Your task to perform on an android device: toggle location history Image 0: 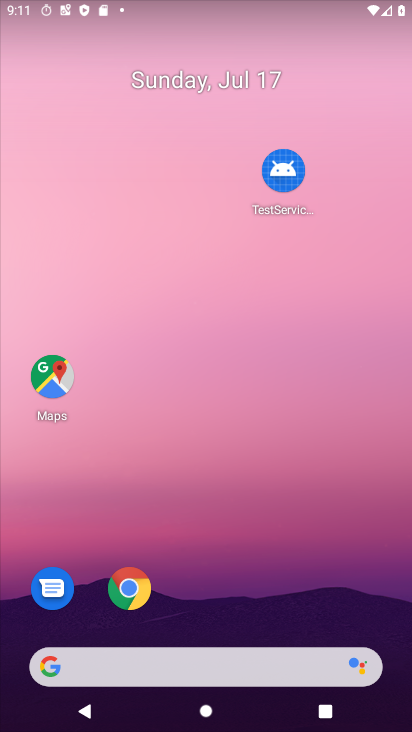
Step 0: drag from (229, 645) to (368, 57)
Your task to perform on an android device: toggle location history Image 1: 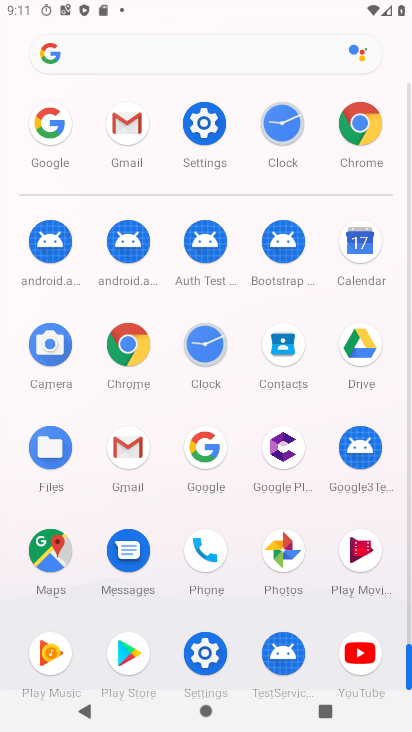
Step 1: click (202, 143)
Your task to perform on an android device: toggle location history Image 2: 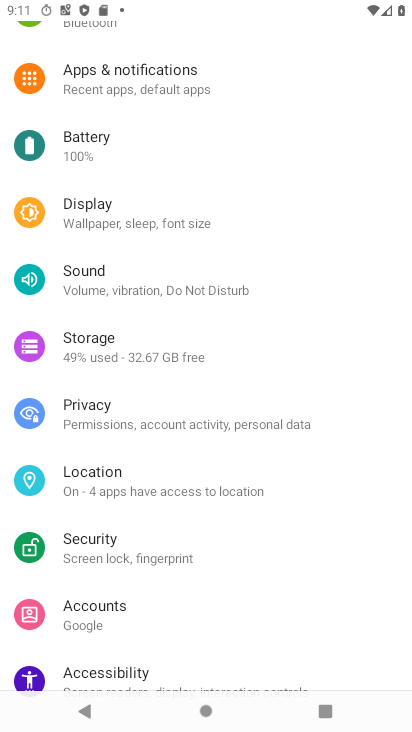
Step 2: click (164, 481)
Your task to perform on an android device: toggle location history Image 3: 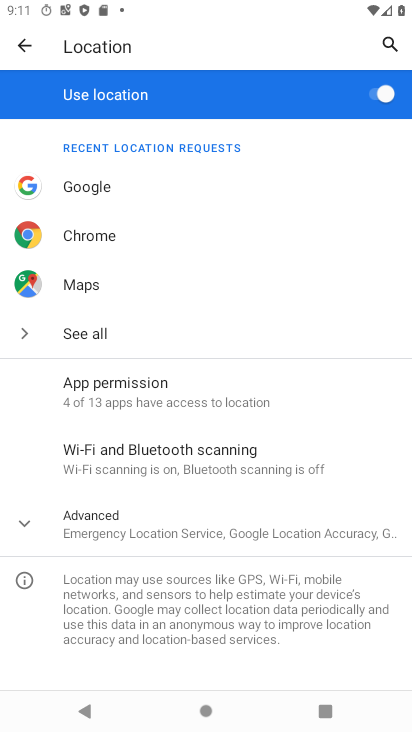
Step 3: click (188, 530)
Your task to perform on an android device: toggle location history Image 4: 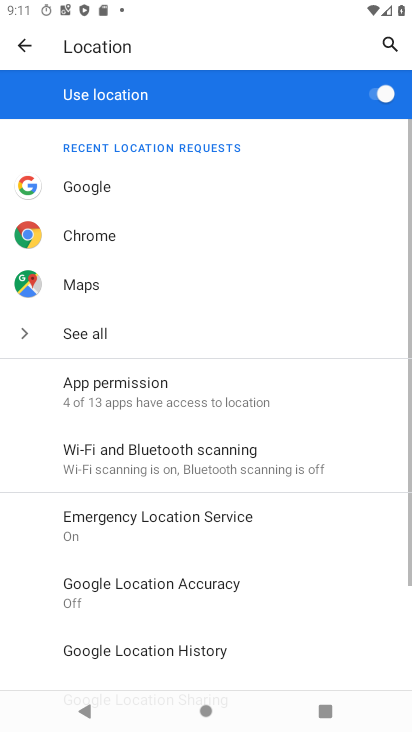
Step 4: drag from (191, 524) to (315, 104)
Your task to perform on an android device: toggle location history Image 5: 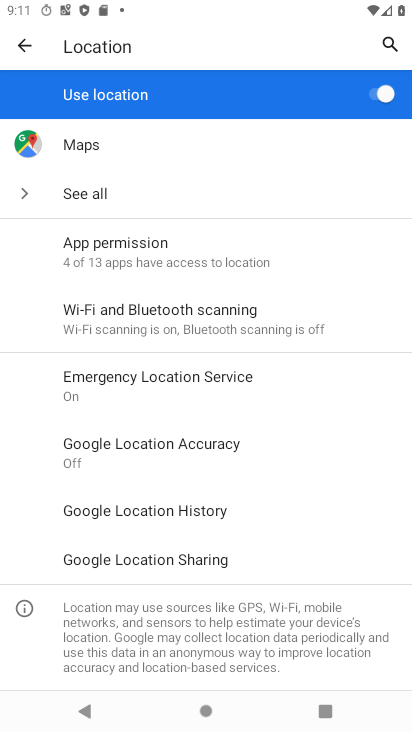
Step 5: click (228, 508)
Your task to perform on an android device: toggle location history Image 6: 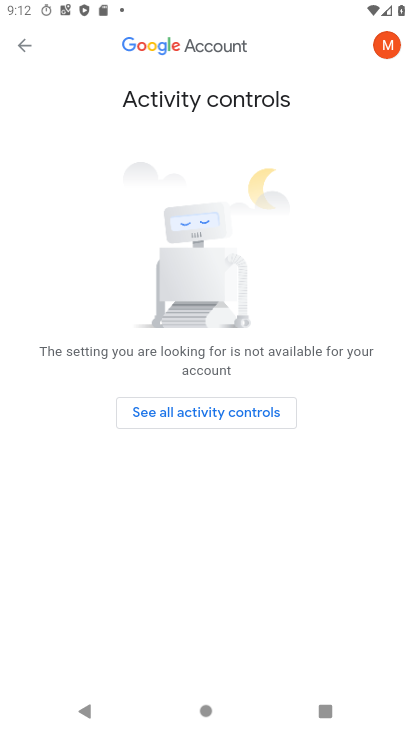
Step 6: task complete